Your task to perform on an android device: create a new album in the google photos Image 0: 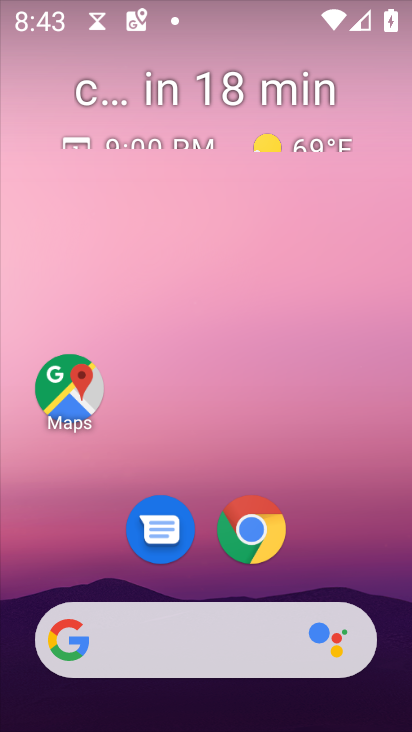
Step 0: drag from (331, 510) to (292, 41)
Your task to perform on an android device: create a new album in the google photos Image 1: 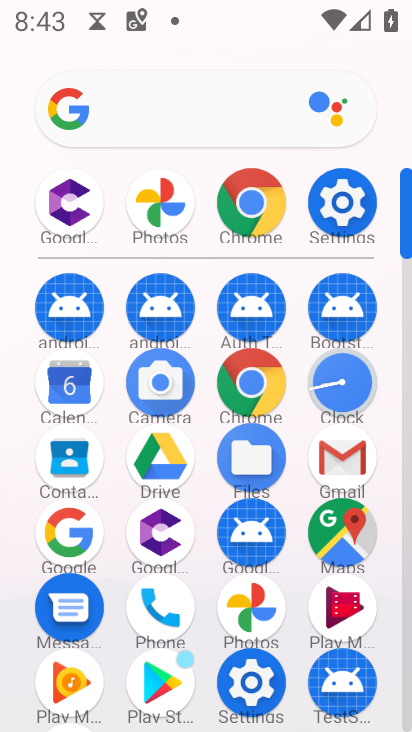
Step 1: click (247, 612)
Your task to perform on an android device: create a new album in the google photos Image 2: 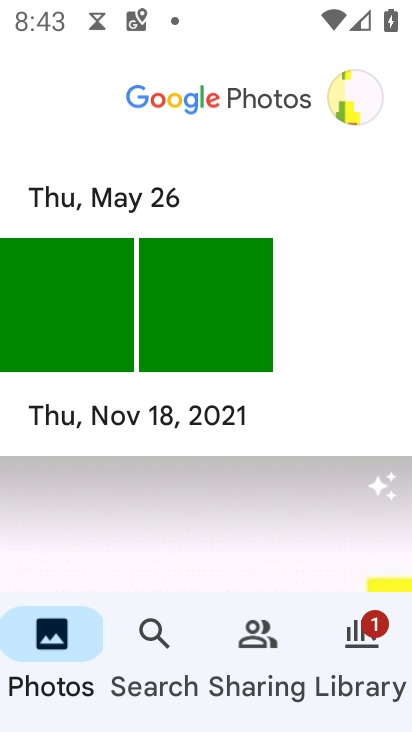
Step 2: click (205, 306)
Your task to perform on an android device: create a new album in the google photos Image 3: 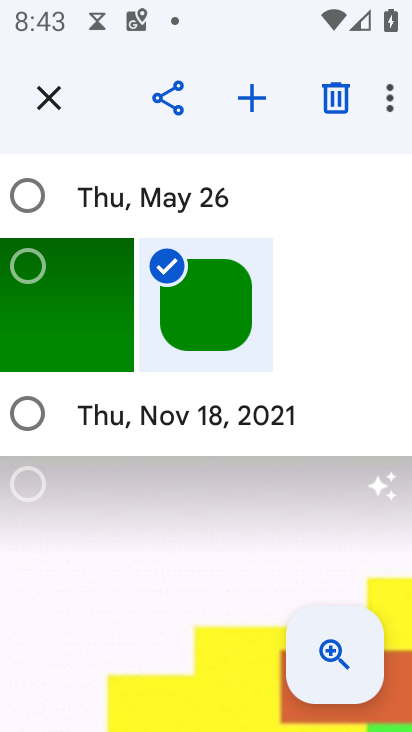
Step 3: click (38, 482)
Your task to perform on an android device: create a new album in the google photos Image 4: 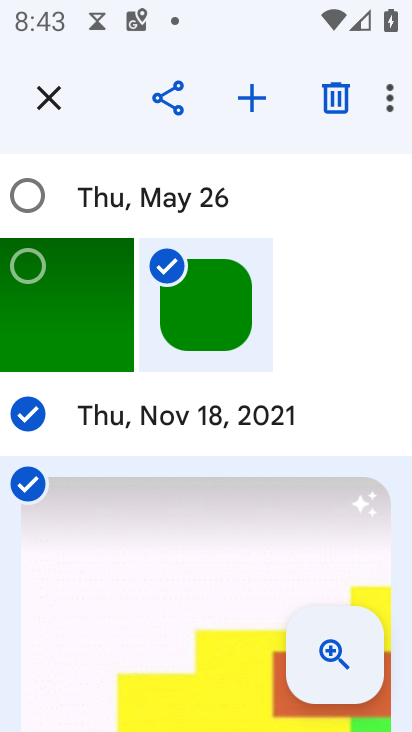
Step 4: click (256, 80)
Your task to perform on an android device: create a new album in the google photos Image 5: 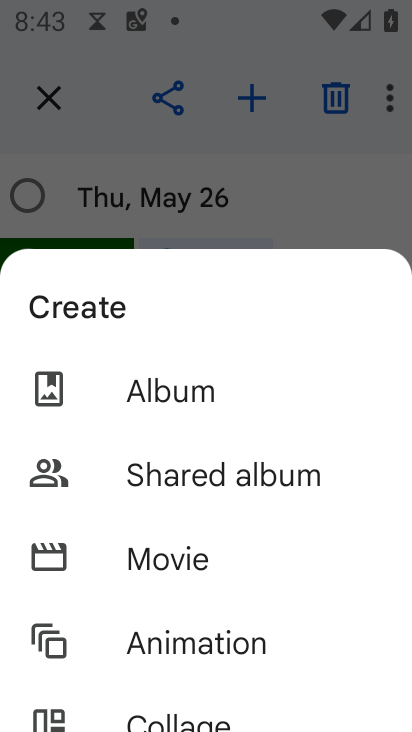
Step 5: click (187, 398)
Your task to perform on an android device: create a new album in the google photos Image 6: 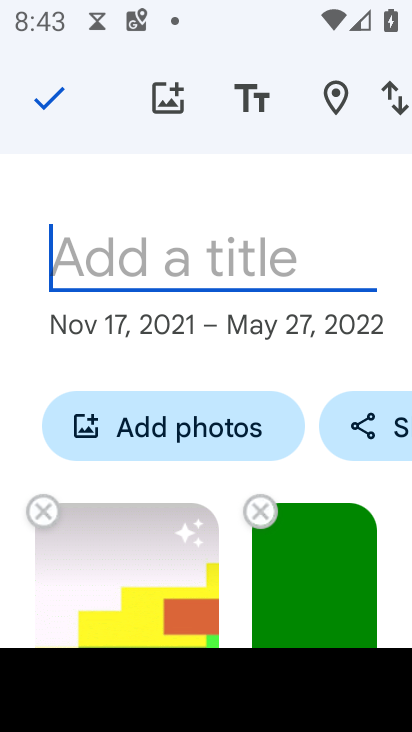
Step 6: type "ssgg"
Your task to perform on an android device: create a new album in the google photos Image 7: 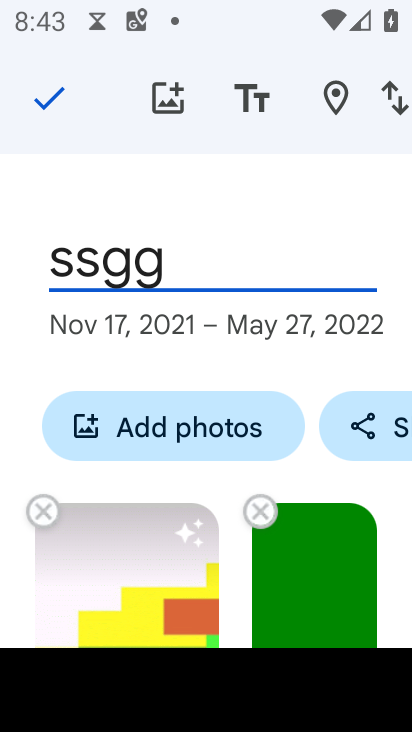
Step 7: click (51, 90)
Your task to perform on an android device: create a new album in the google photos Image 8: 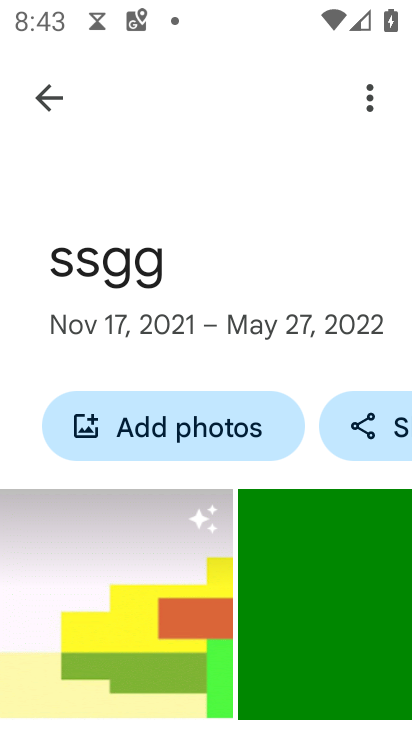
Step 8: task complete